Your task to perform on an android device: toggle pop-ups in chrome Image 0: 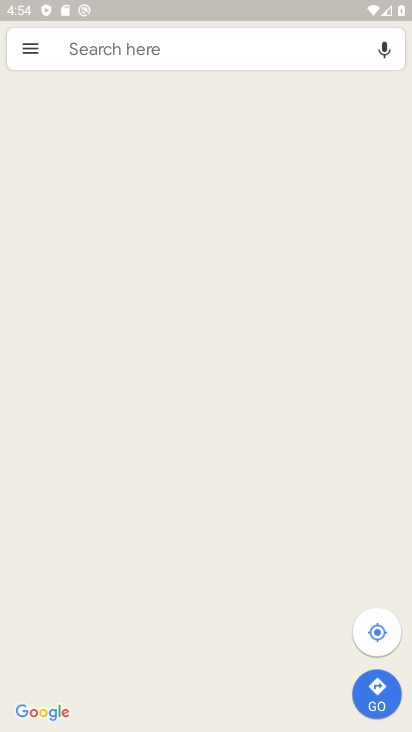
Step 0: press home button
Your task to perform on an android device: toggle pop-ups in chrome Image 1: 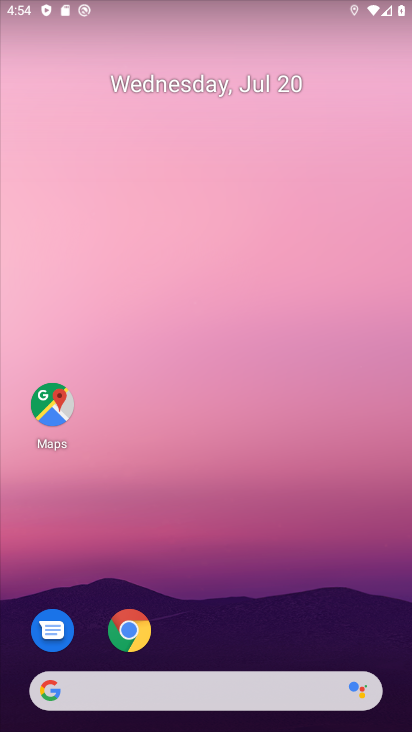
Step 1: drag from (214, 661) to (230, 81)
Your task to perform on an android device: toggle pop-ups in chrome Image 2: 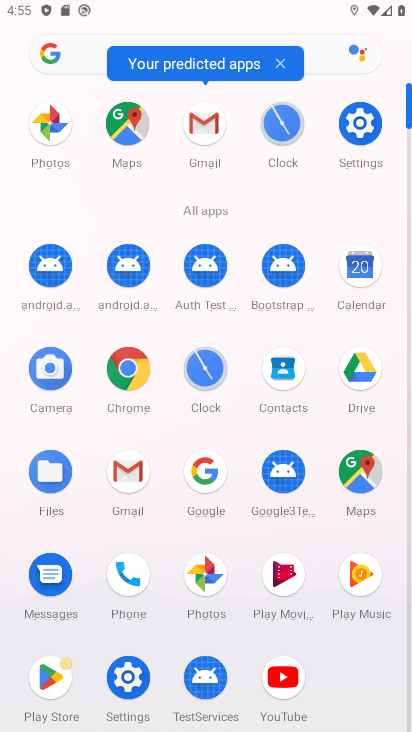
Step 2: click (128, 371)
Your task to perform on an android device: toggle pop-ups in chrome Image 3: 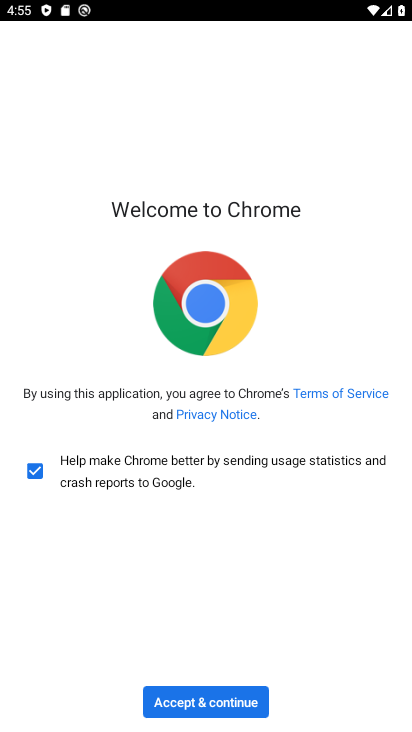
Step 3: click (202, 693)
Your task to perform on an android device: toggle pop-ups in chrome Image 4: 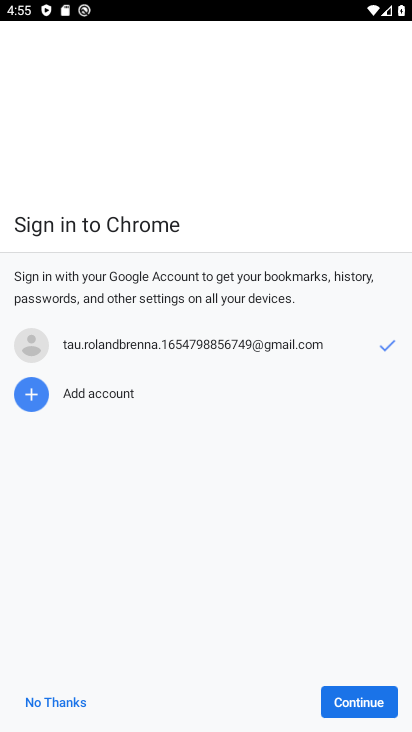
Step 4: click (45, 701)
Your task to perform on an android device: toggle pop-ups in chrome Image 5: 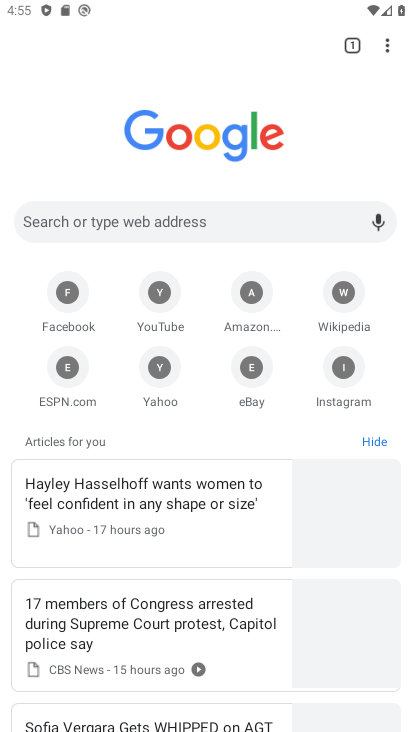
Step 5: drag from (387, 44) to (362, 295)
Your task to perform on an android device: toggle pop-ups in chrome Image 6: 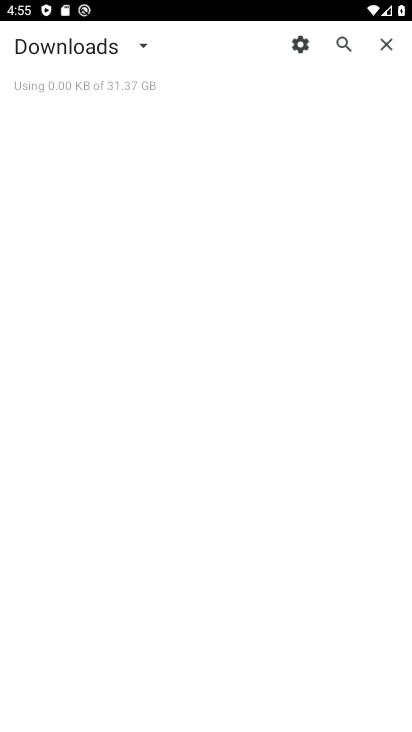
Step 6: drag from (385, 41) to (393, 97)
Your task to perform on an android device: toggle pop-ups in chrome Image 7: 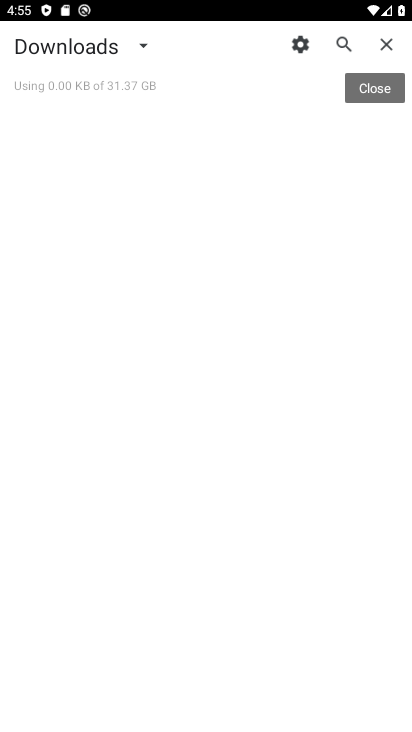
Step 7: press back button
Your task to perform on an android device: toggle pop-ups in chrome Image 8: 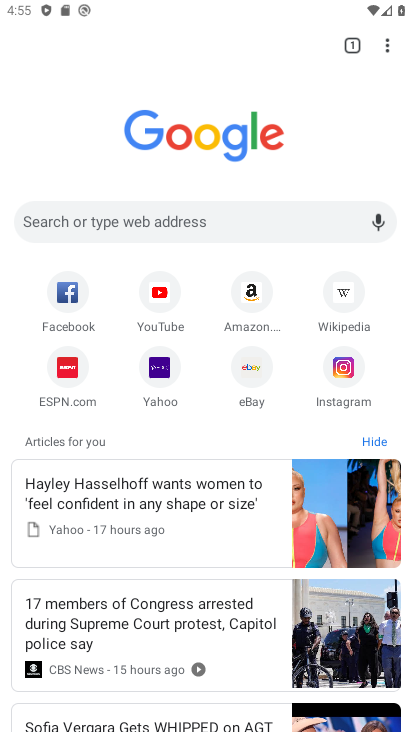
Step 8: drag from (383, 40) to (219, 372)
Your task to perform on an android device: toggle pop-ups in chrome Image 9: 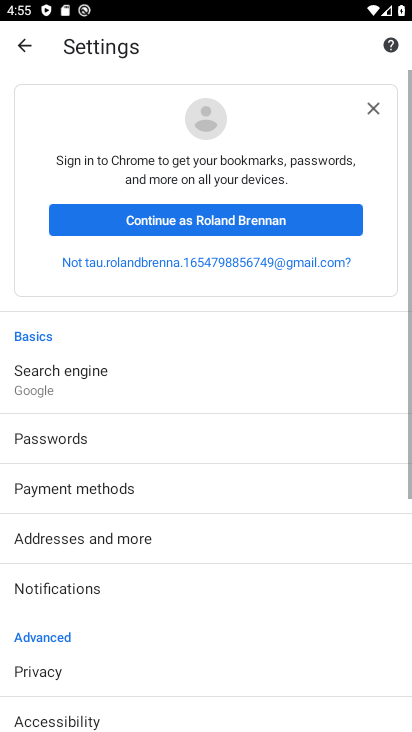
Step 9: drag from (203, 618) to (250, 184)
Your task to perform on an android device: toggle pop-ups in chrome Image 10: 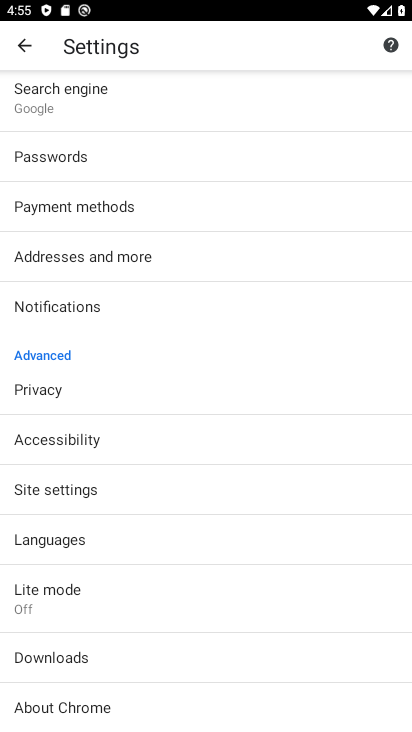
Step 10: click (86, 504)
Your task to perform on an android device: toggle pop-ups in chrome Image 11: 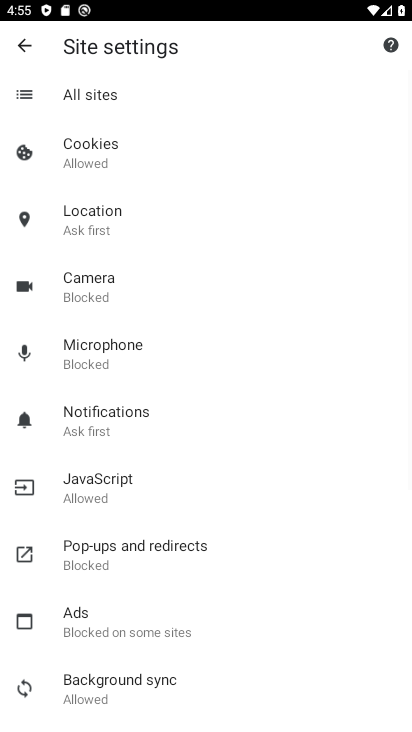
Step 11: click (176, 541)
Your task to perform on an android device: toggle pop-ups in chrome Image 12: 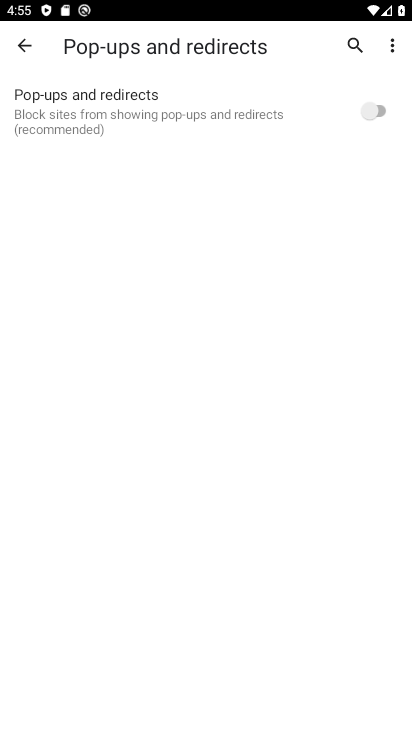
Step 12: click (380, 107)
Your task to perform on an android device: toggle pop-ups in chrome Image 13: 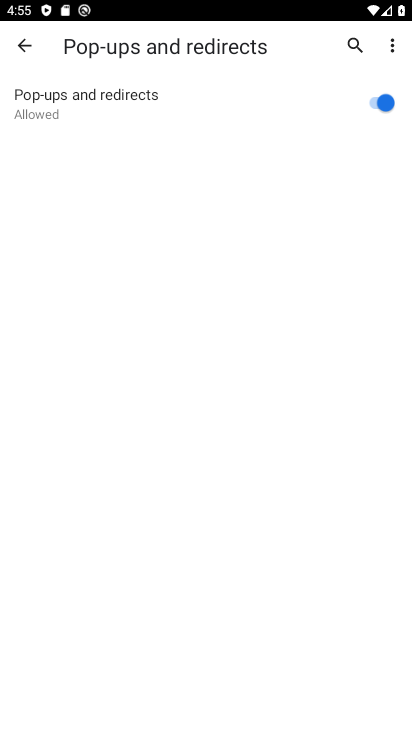
Step 13: task complete